Your task to perform on an android device: check out phone information Image 0: 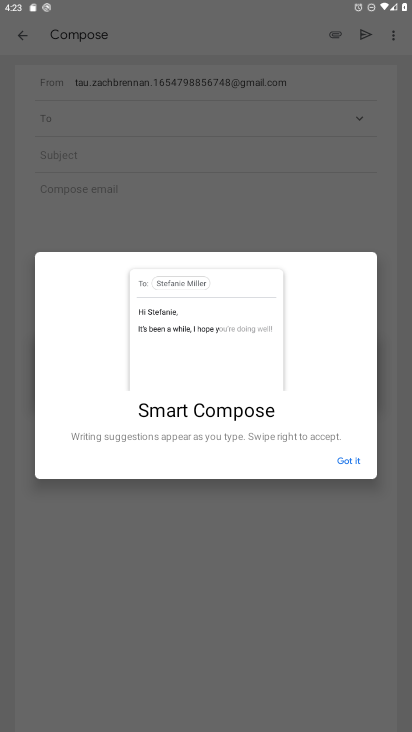
Step 0: press home button
Your task to perform on an android device: check out phone information Image 1: 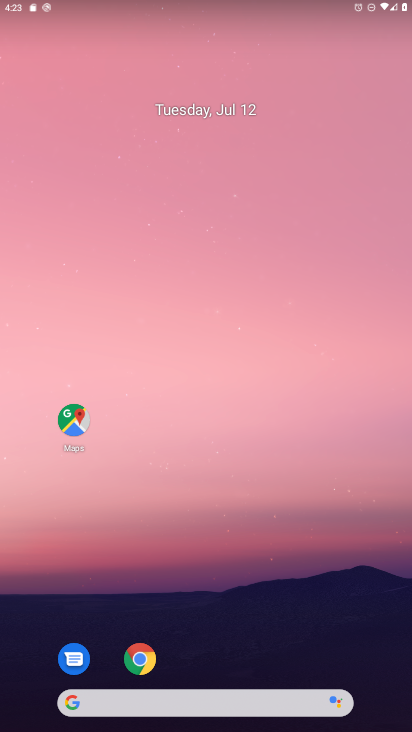
Step 1: drag from (218, 172) to (207, 8)
Your task to perform on an android device: check out phone information Image 2: 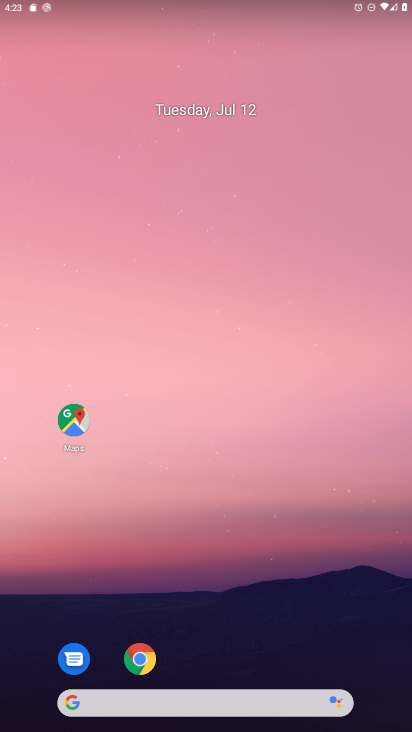
Step 2: drag from (227, 441) to (229, 102)
Your task to perform on an android device: check out phone information Image 3: 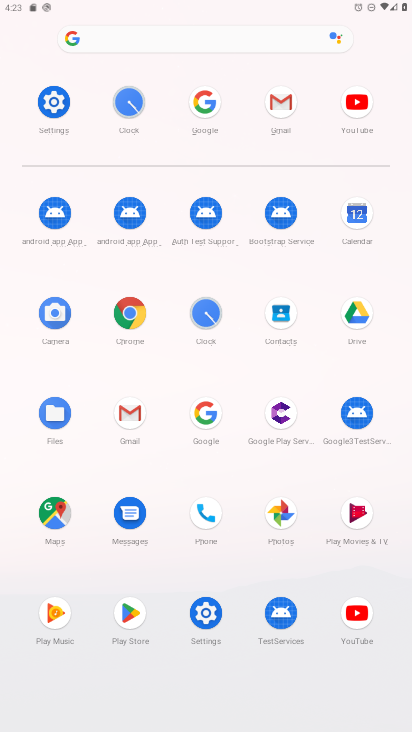
Step 3: click (51, 106)
Your task to perform on an android device: check out phone information Image 4: 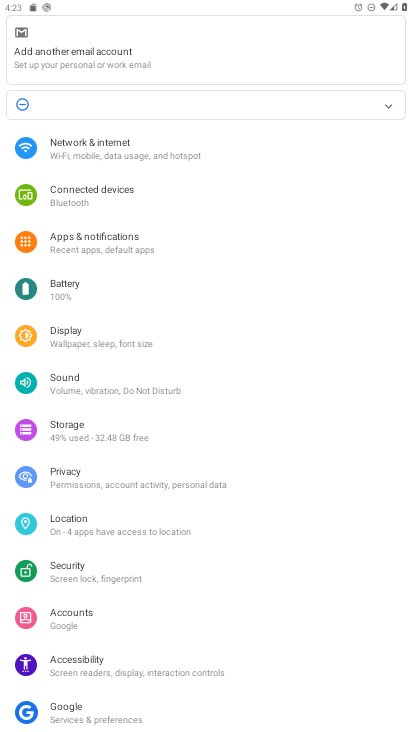
Step 4: click (205, 133)
Your task to perform on an android device: check out phone information Image 5: 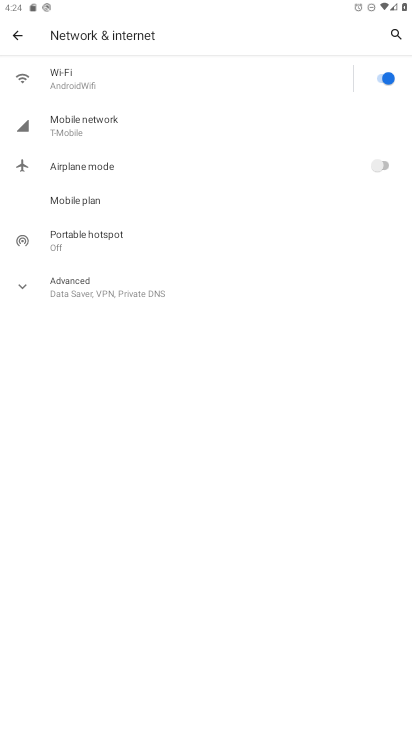
Step 5: click (19, 30)
Your task to perform on an android device: check out phone information Image 6: 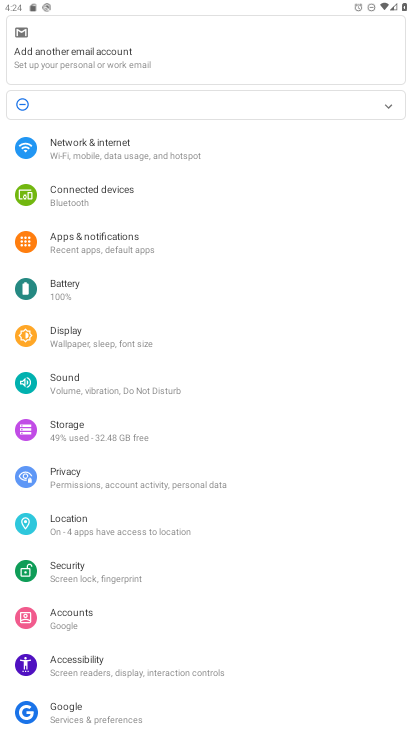
Step 6: drag from (145, 527) to (254, 233)
Your task to perform on an android device: check out phone information Image 7: 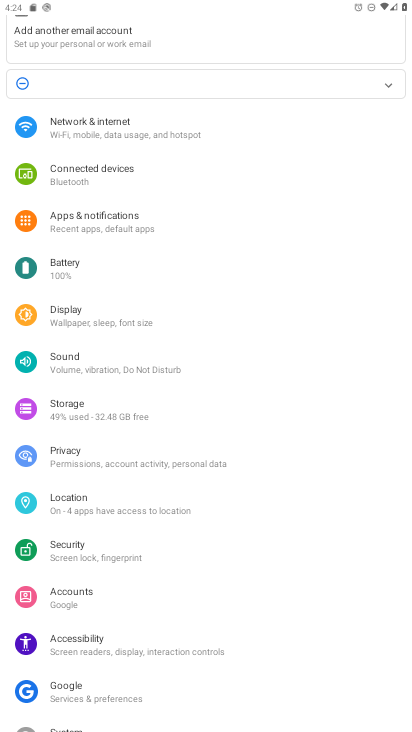
Step 7: drag from (108, 638) to (153, 285)
Your task to perform on an android device: check out phone information Image 8: 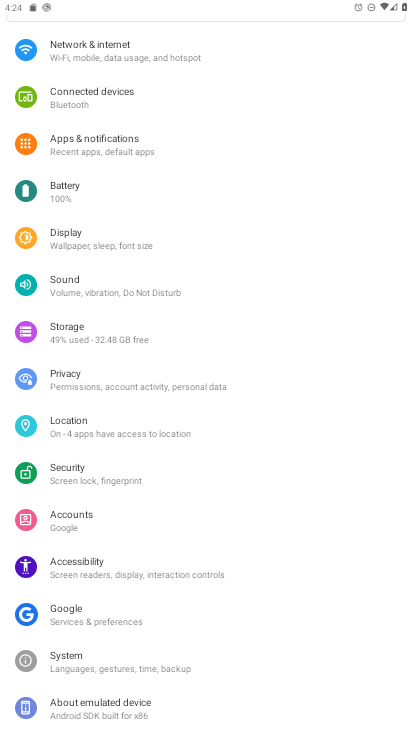
Step 8: click (63, 713)
Your task to perform on an android device: check out phone information Image 9: 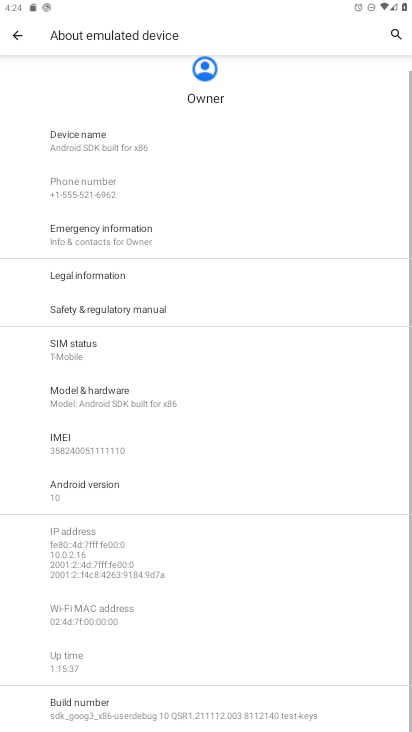
Step 9: task complete